Your task to perform on an android device: What's the weather going to be tomorrow? Image 0: 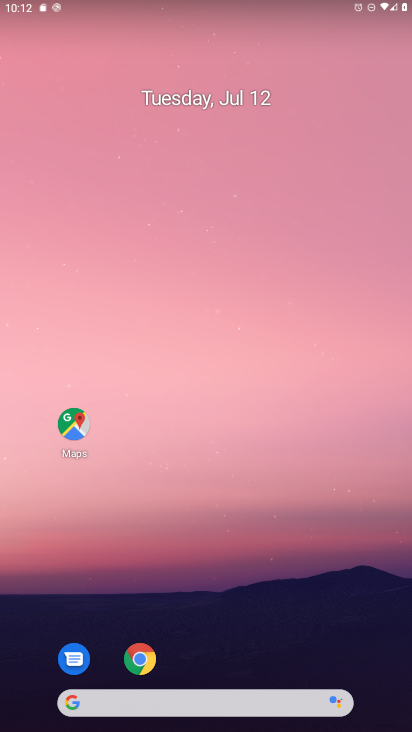
Step 0: click (135, 662)
Your task to perform on an android device: What's the weather going to be tomorrow? Image 1: 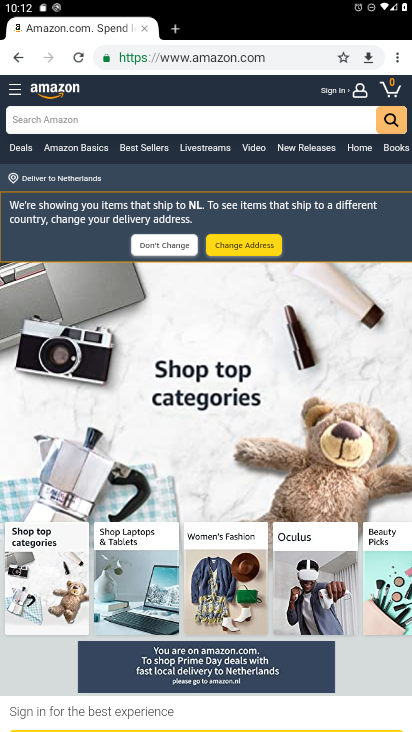
Step 1: click (220, 57)
Your task to perform on an android device: What's the weather going to be tomorrow? Image 2: 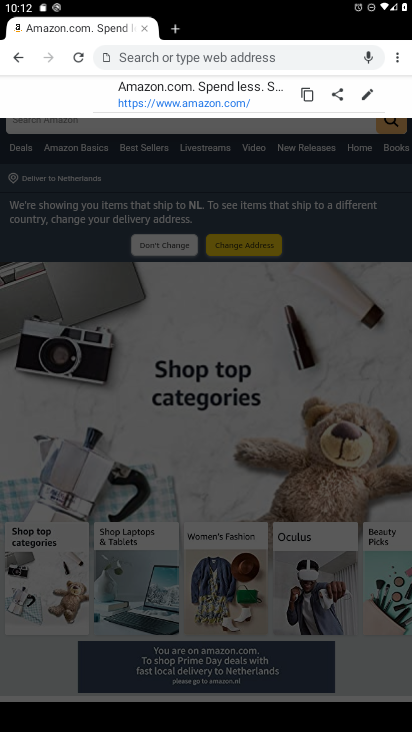
Step 2: type "weather tomorrow"
Your task to perform on an android device: What's the weather going to be tomorrow? Image 3: 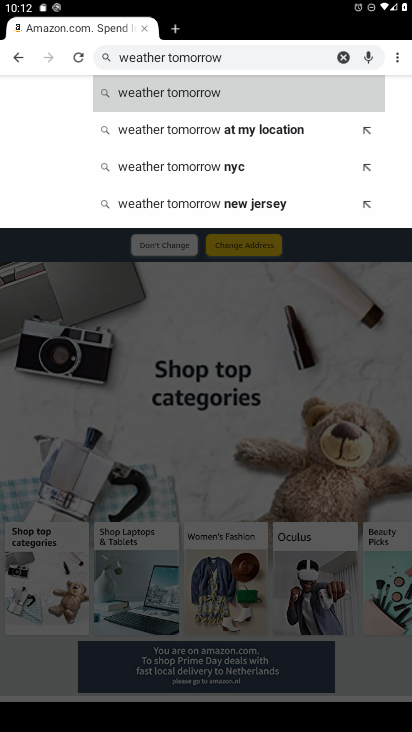
Step 3: click (201, 94)
Your task to perform on an android device: What's the weather going to be tomorrow? Image 4: 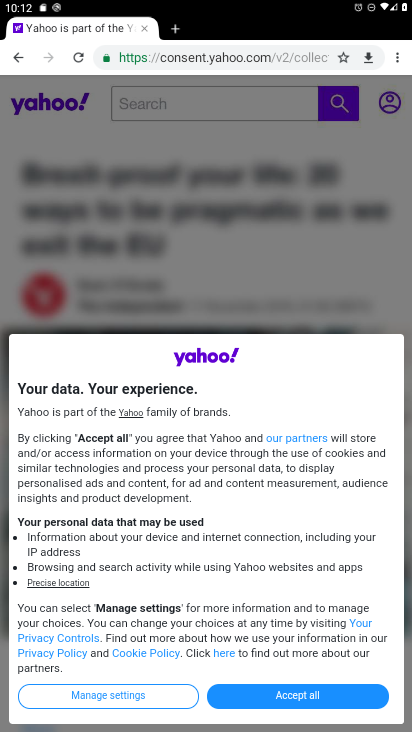
Step 4: click (314, 690)
Your task to perform on an android device: What's the weather going to be tomorrow? Image 5: 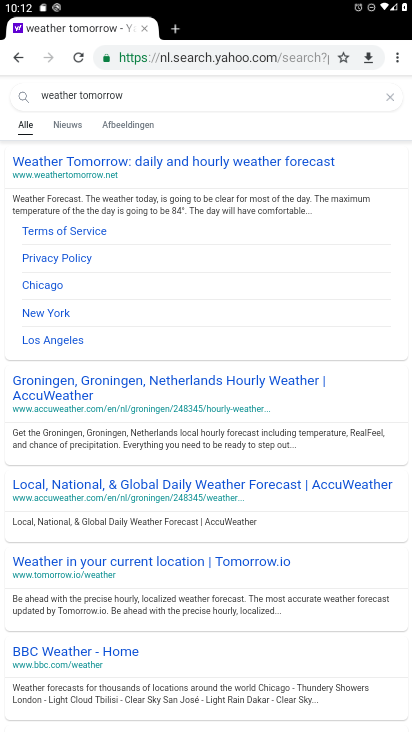
Step 5: click (141, 160)
Your task to perform on an android device: What's the weather going to be tomorrow? Image 6: 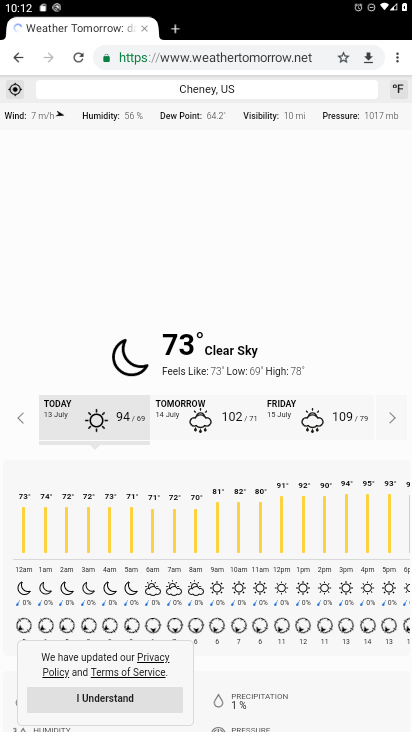
Step 6: task complete